Your task to perform on an android device: Is it going to rain tomorrow? Image 0: 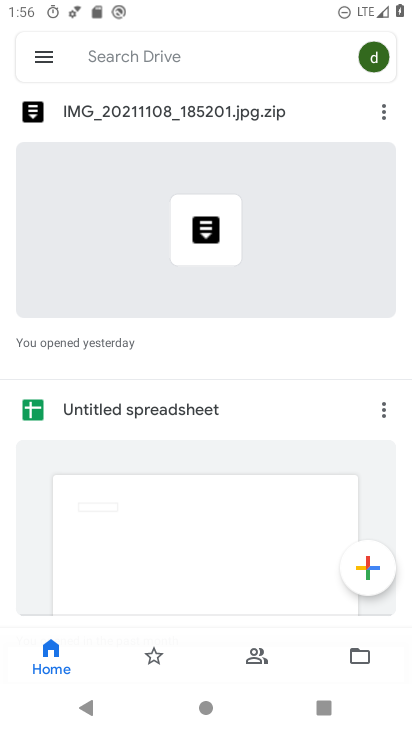
Step 0: press home button
Your task to perform on an android device: Is it going to rain tomorrow? Image 1: 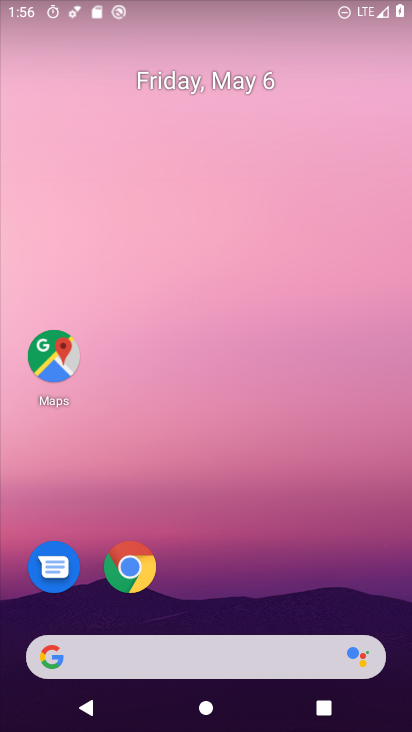
Step 1: drag from (243, 687) to (247, 214)
Your task to perform on an android device: Is it going to rain tomorrow? Image 2: 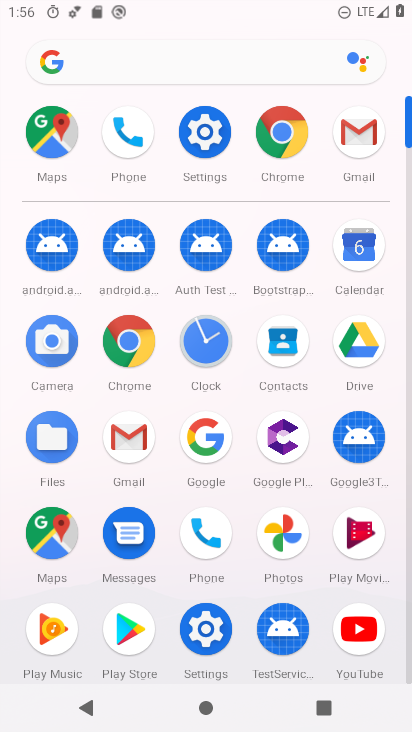
Step 2: click (156, 63)
Your task to perform on an android device: Is it going to rain tomorrow? Image 3: 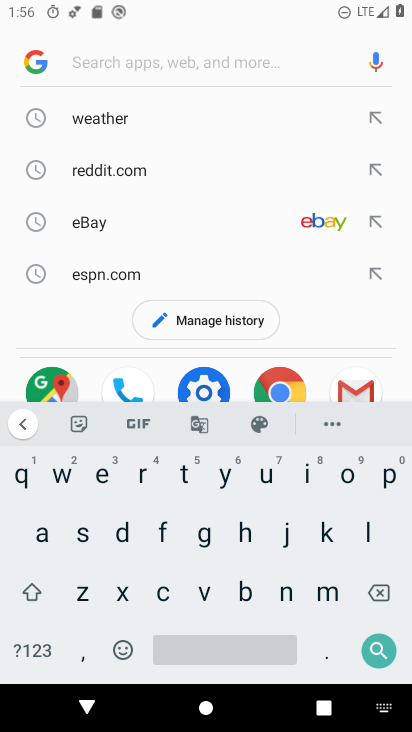
Step 3: click (118, 116)
Your task to perform on an android device: Is it going to rain tomorrow? Image 4: 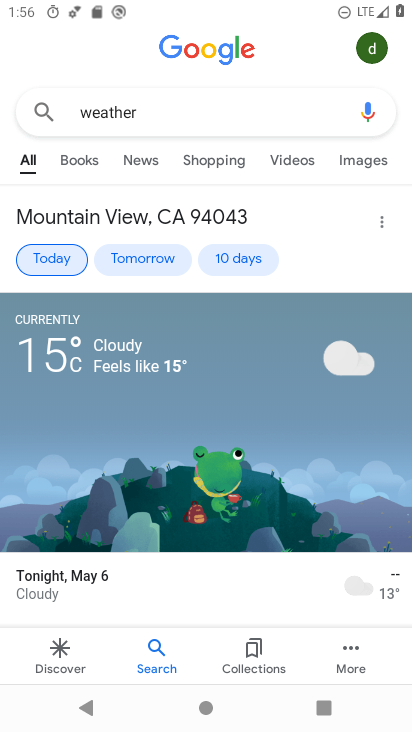
Step 4: click (148, 258)
Your task to perform on an android device: Is it going to rain tomorrow? Image 5: 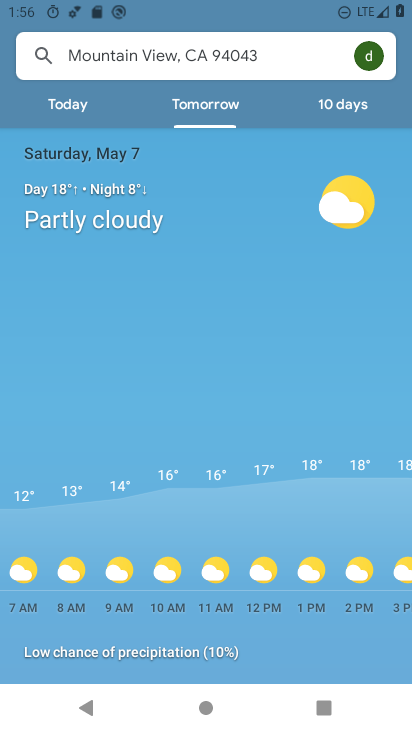
Step 5: task complete